Your task to perform on an android device: empty trash in the gmail app Image 0: 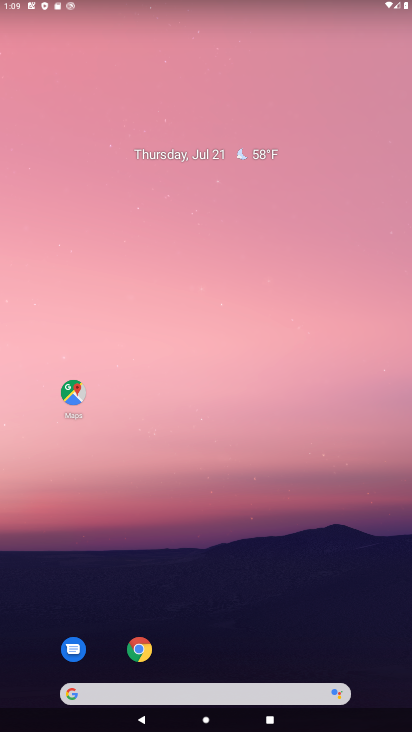
Step 0: drag from (284, 656) to (264, 90)
Your task to perform on an android device: empty trash in the gmail app Image 1: 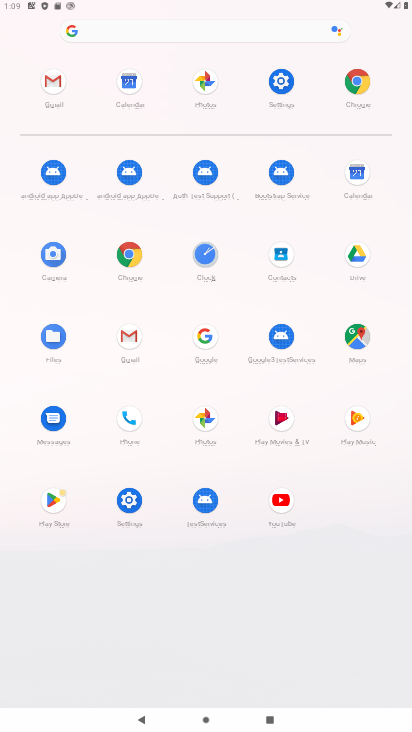
Step 1: click (44, 86)
Your task to perform on an android device: empty trash in the gmail app Image 2: 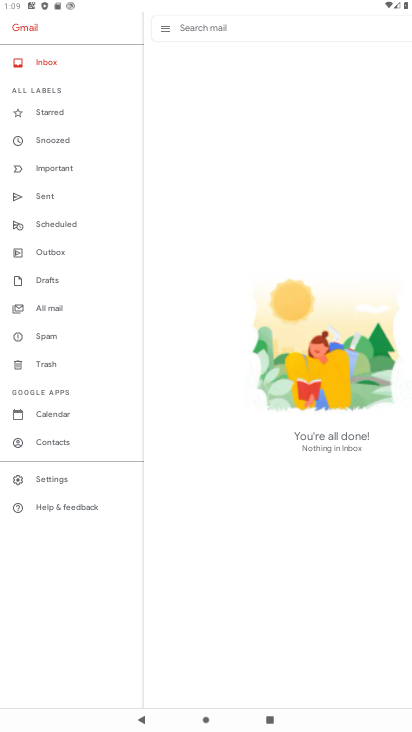
Step 2: task complete